Your task to perform on an android device: Is it going to rain tomorrow? Image 0: 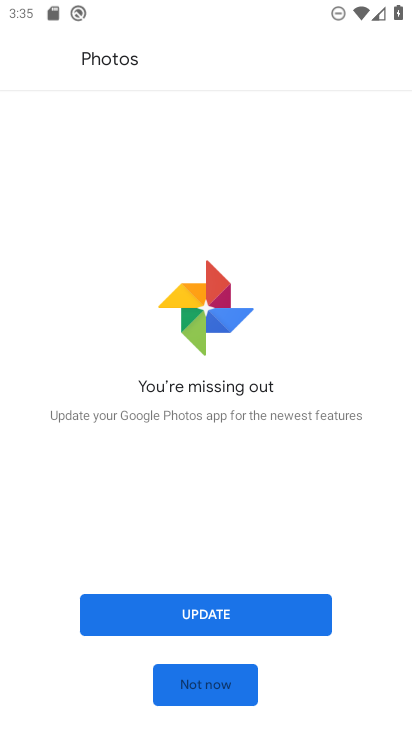
Step 0: press back button
Your task to perform on an android device: Is it going to rain tomorrow? Image 1: 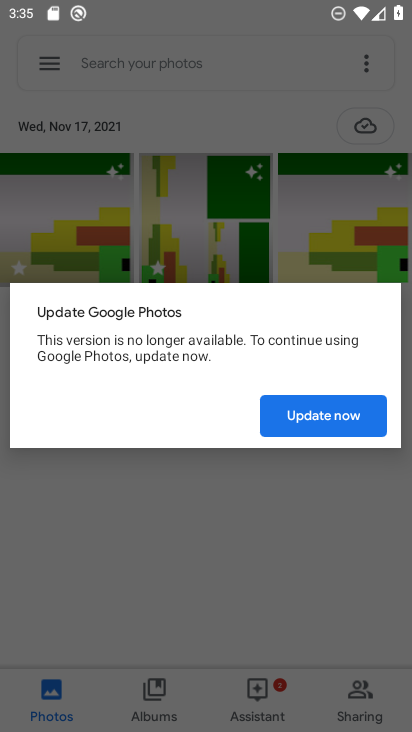
Step 1: press home button
Your task to perform on an android device: Is it going to rain tomorrow? Image 2: 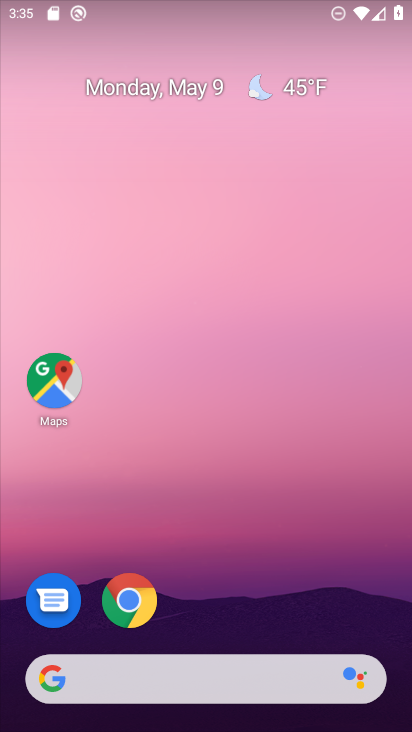
Step 2: drag from (230, 590) to (111, 7)
Your task to perform on an android device: Is it going to rain tomorrow? Image 3: 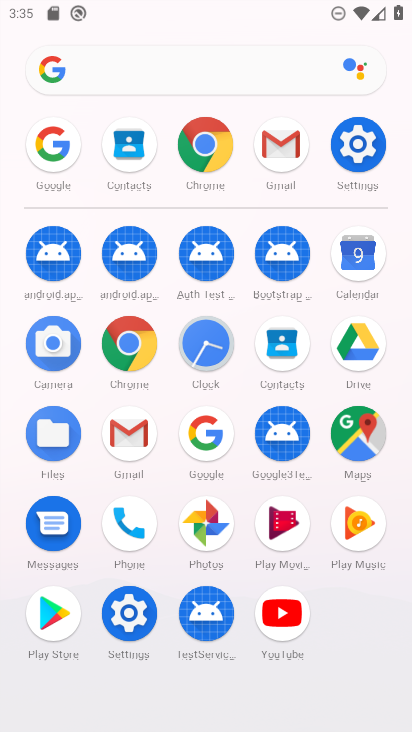
Step 3: drag from (19, 489) to (11, 109)
Your task to perform on an android device: Is it going to rain tomorrow? Image 4: 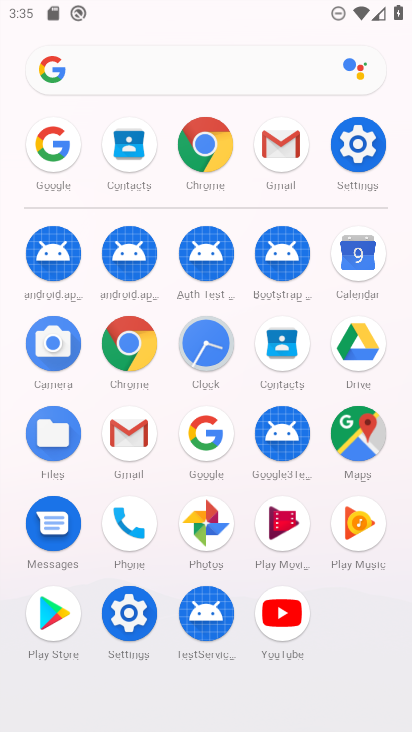
Step 4: click (128, 340)
Your task to perform on an android device: Is it going to rain tomorrow? Image 5: 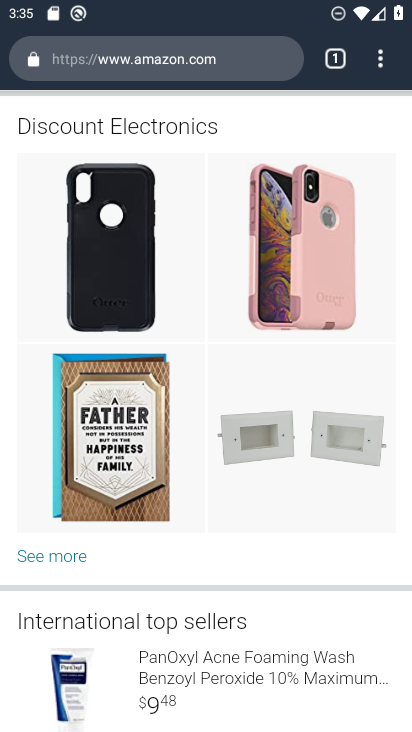
Step 5: click (176, 60)
Your task to perform on an android device: Is it going to rain tomorrow? Image 6: 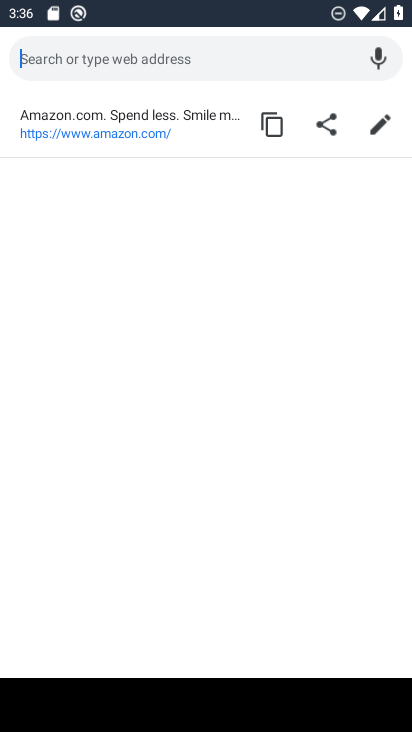
Step 6: click (142, 40)
Your task to perform on an android device: Is it going to rain tomorrow? Image 7: 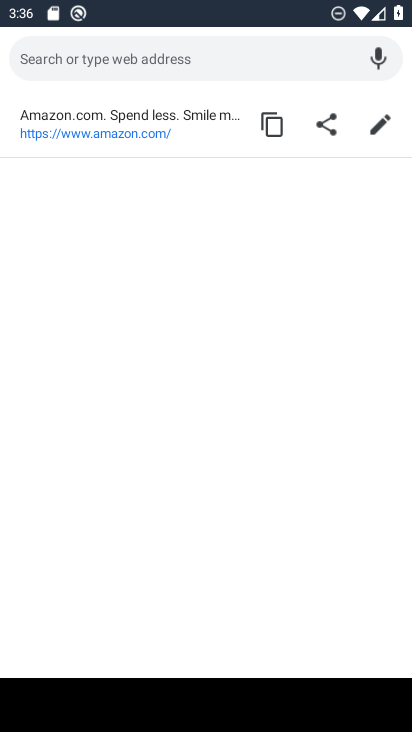
Step 7: type "Is it going to rain tomorrow?"
Your task to perform on an android device: Is it going to rain tomorrow? Image 8: 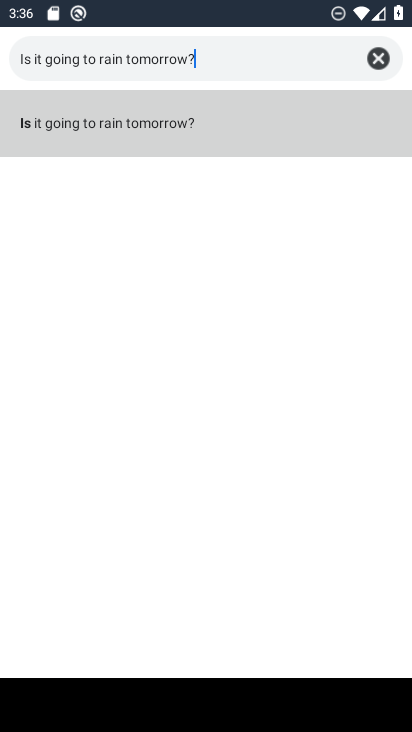
Step 8: click (152, 116)
Your task to perform on an android device: Is it going to rain tomorrow? Image 9: 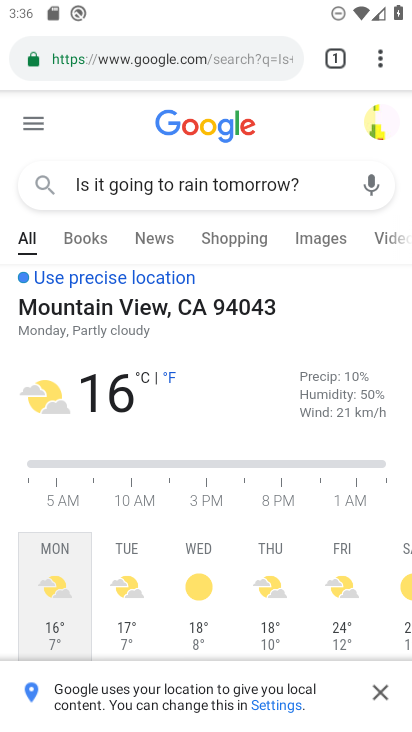
Step 9: task complete